Your task to perform on an android device: open a new tab in the chrome app Image 0: 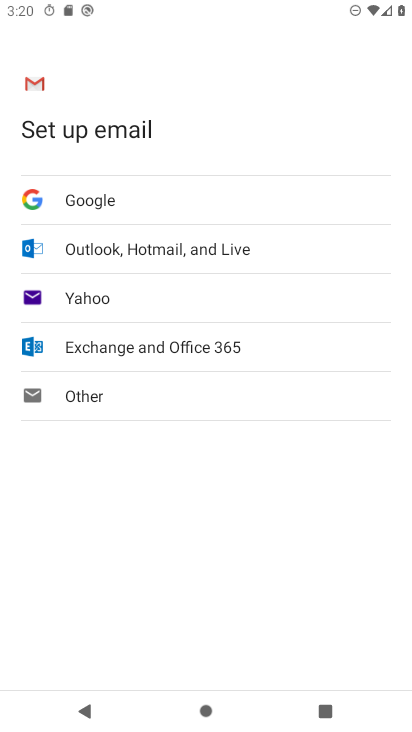
Step 0: press home button
Your task to perform on an android device: open a new tab in the chrome app Image 1: 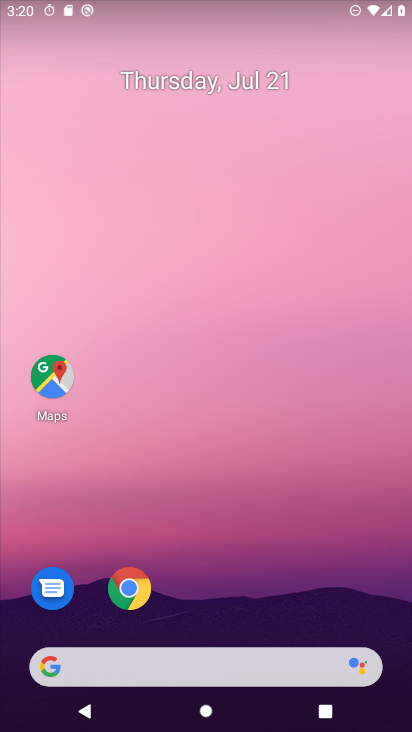
Step 1: drag from (295, 513) to (383, 210)
Your task to perform on an android device: open a new tab in the chrome app Image 2: 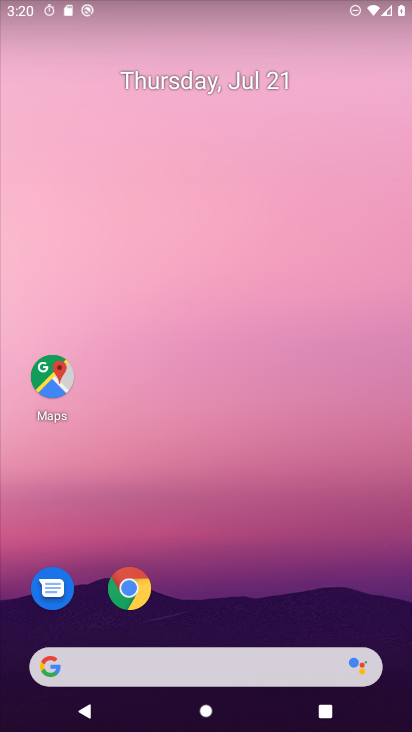
Step 2: drag from (272, 667) to (311, 223)
Your task to perform on an android device: open a new tab in the chrome app Image 3: 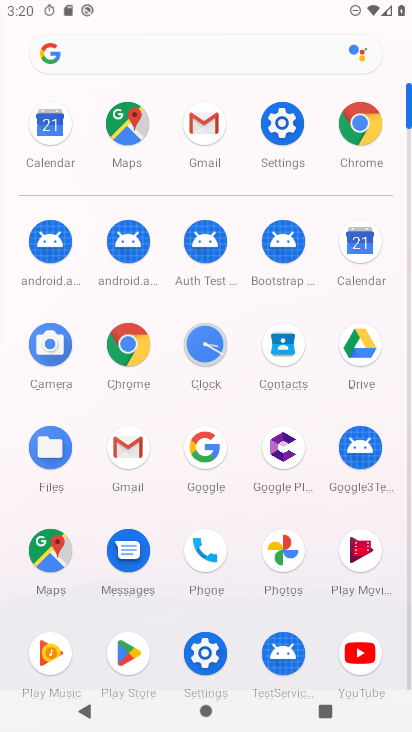
Step 3: click (364, 124)
Your task to perform on an android device: open a new tab in the chrome app Image 4: 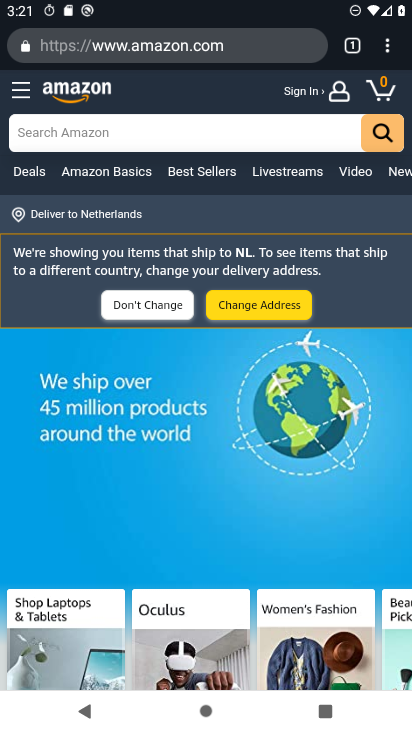
Step 4: drag from (347, 39) to (285, 477)
Your task to perform on an android device: open a new tab in the chrome app Image 5: 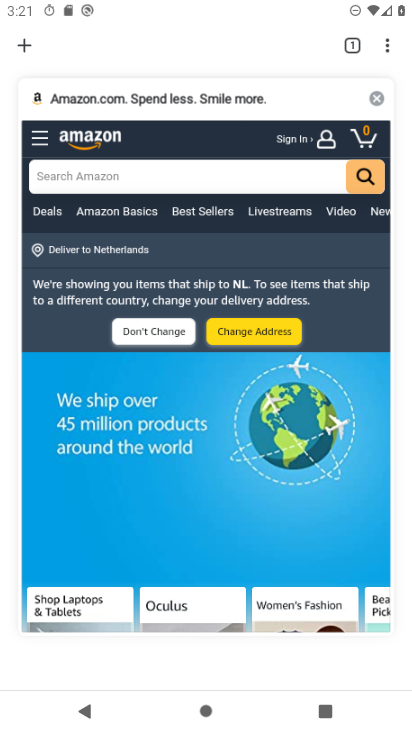
Step 5: click (22, 47)
Your task to perform on an android device: open a new tab in the chrome app Image 6: 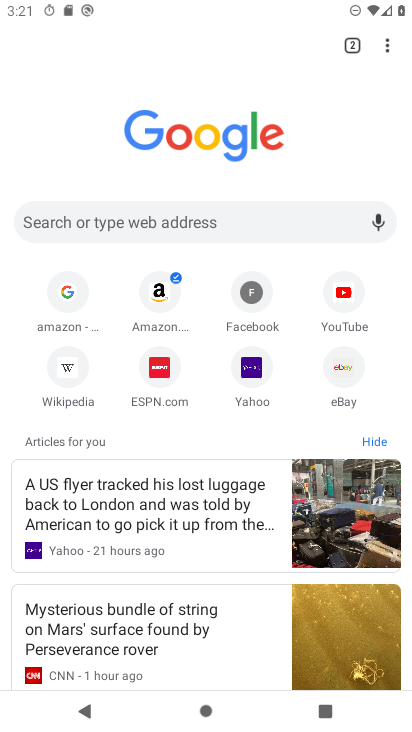
Step 6: task complete